Your task to perform on an android device: change notifications settings Image 0: 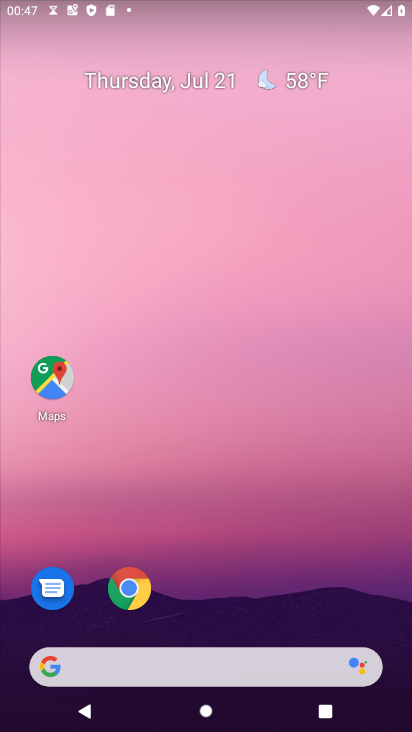
Step 0: drag from (221, 639) to (221, 72)
Your task to perform on an android device: change notifications settings Image 1: 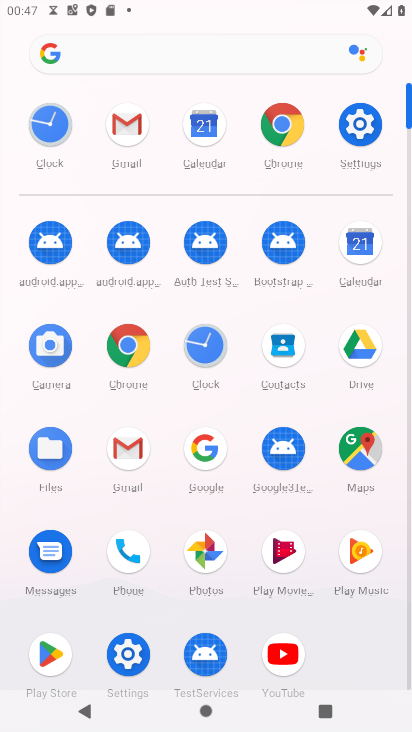
Step 1: click (143, 654)
Your task to perform on an android device: change notifications settings Image 2: 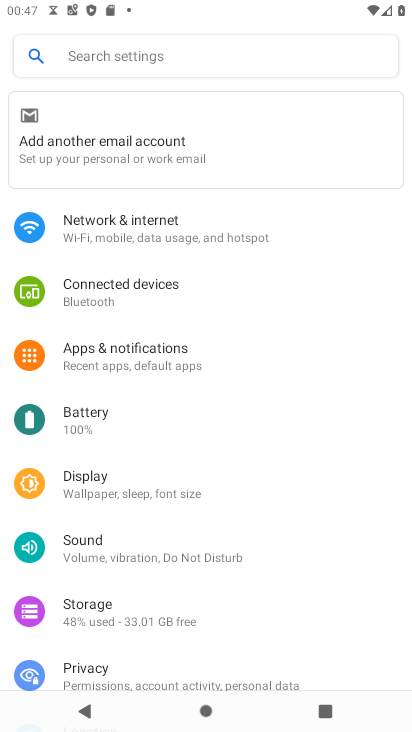
Step 2: click (165, 360)
Your task to perform on an android device: change notifications settings Image 3: 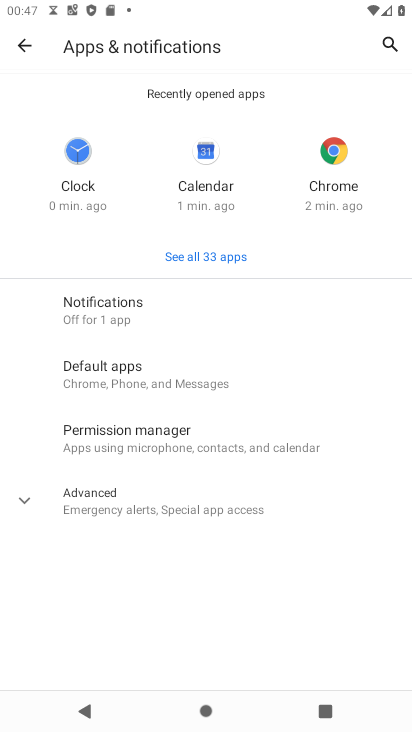
Step 3: click (127, 312)
Your task to perform on an android device: change notifications settings Image 4: 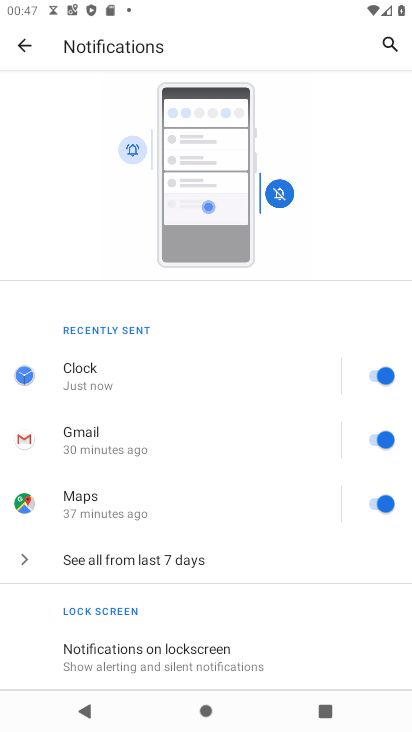
Step 4: click (117, 566)
Your task to perform on an android device: change notifications settings Image 5: 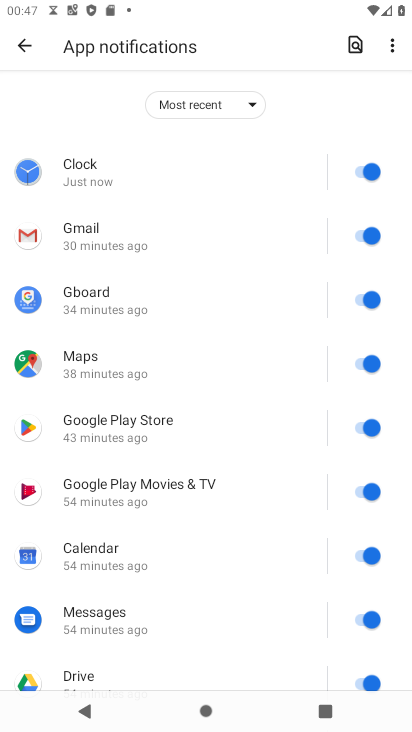
Step 5: click (353, 171)
Your task to perform on an android device: change notifications settings Image 6: 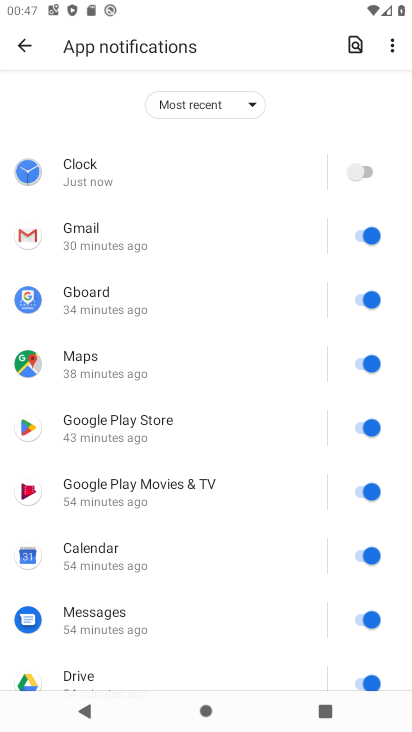
Step 6: click (354, 233)
Your task to perform on an android device: change notifications settings Image 7: 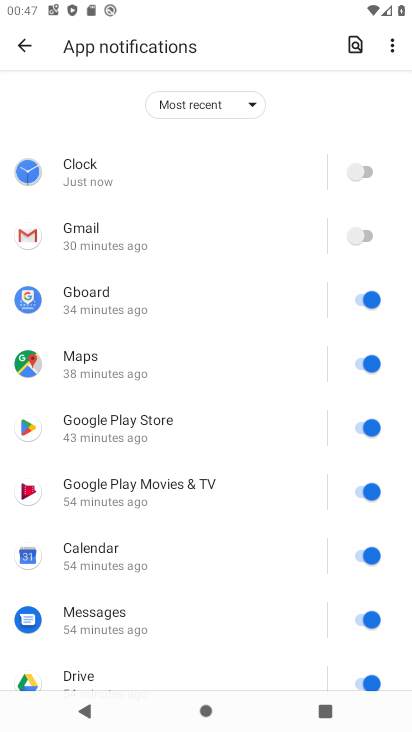
Step 7: click (357, 305)
Your task to perform on an android device: change notifications settings Image 8: 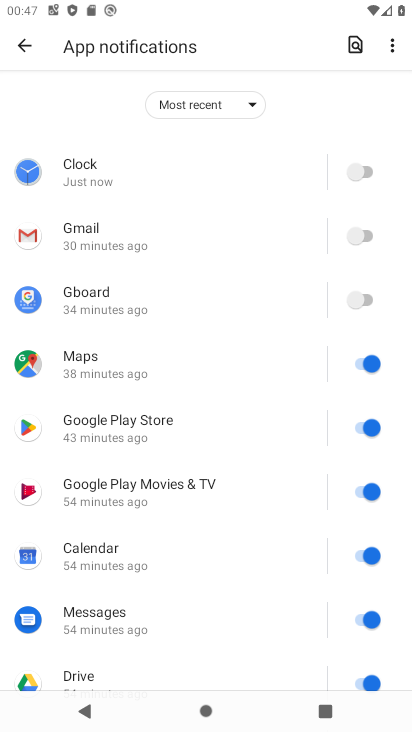
Step 8: click (357, 367)
Your task to perform on an android device: change notifications settings Image 9: 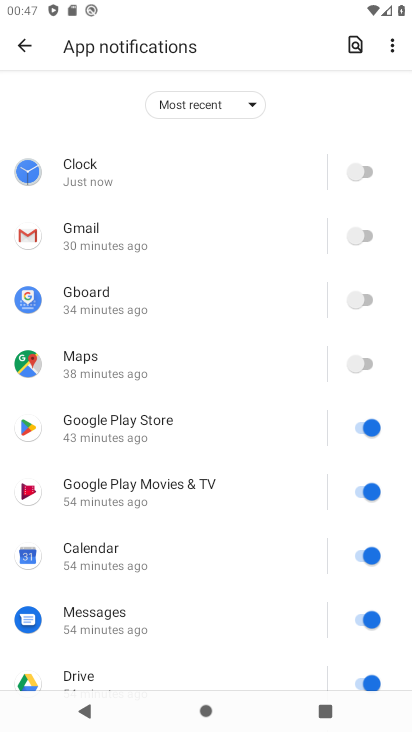
Step 9: click (359, 434)
Your task to perform on an android device: change notifications settings Image 10: 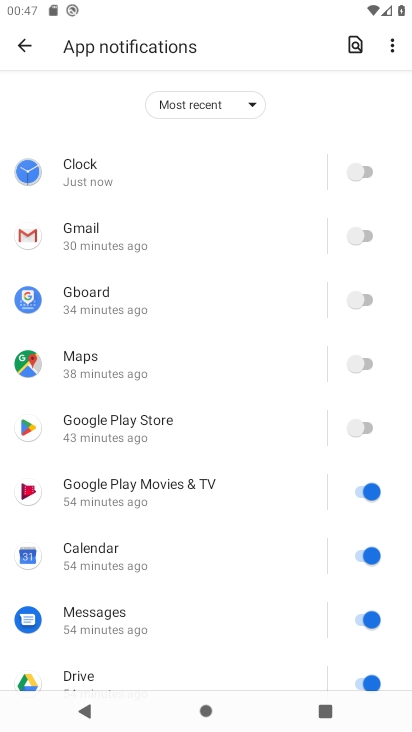
Step 10: click (339, 486)
Your task to perform on an android device: change notifications settings Image 11: 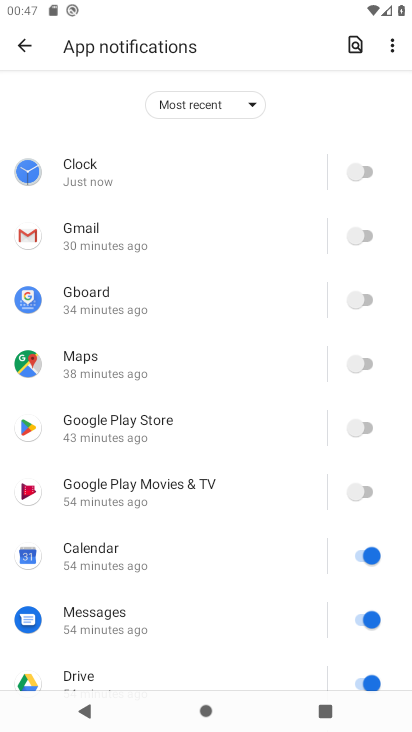
Step 11: drag from (280, 581) to (283, 325)
Your task to perform on an android device: change notifications settings Image 12: 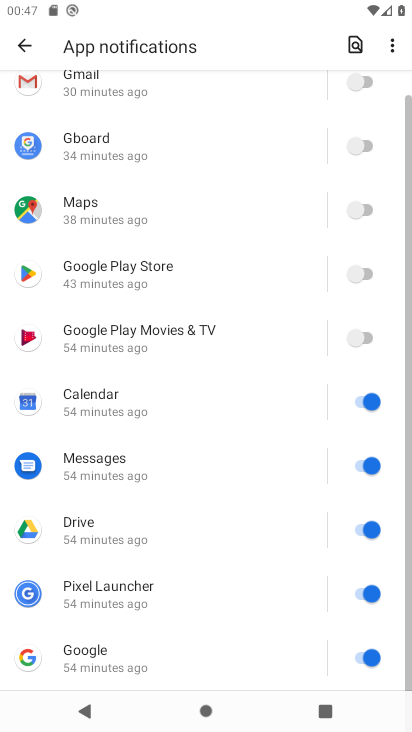
Step 12: click (350, 406)
Your task to perform on an android device: change notifications settings Image 13: 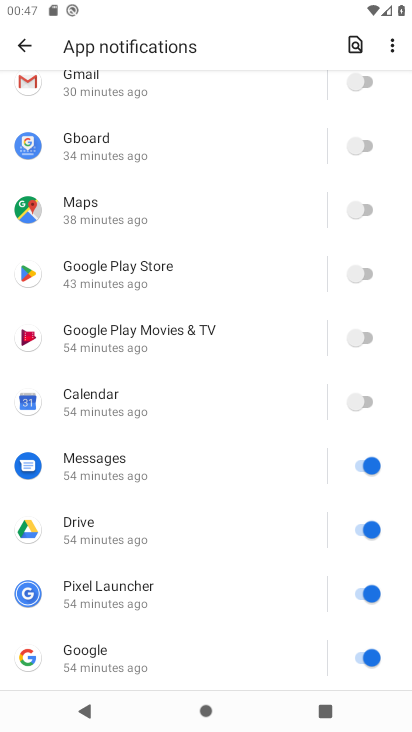
Step 13: click (339, 472)
Your task to perform on an android device: change notifications settings Image 14: 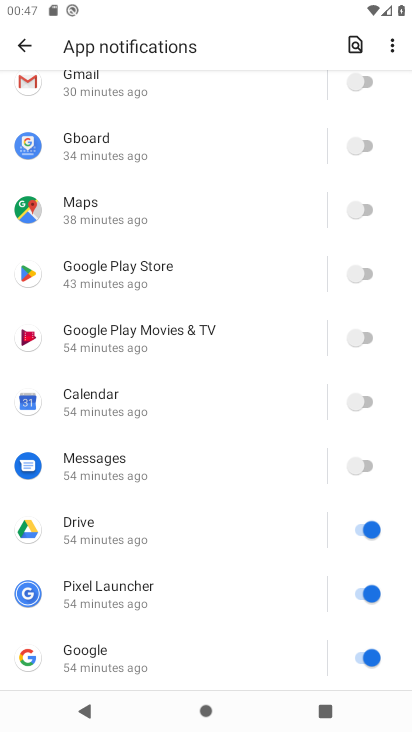
Step 14: click (343, 538)
Your task to perform on an android device: change notifications settings Image 15: 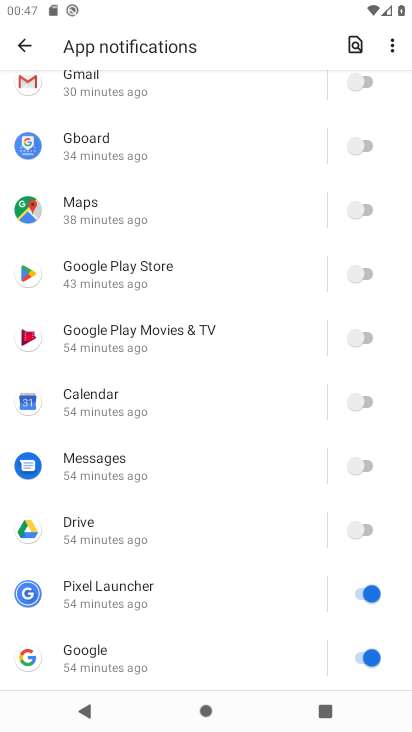
Step 15: click (346, 612)
Your task to perform on an android device: change notifications settings Image 16: 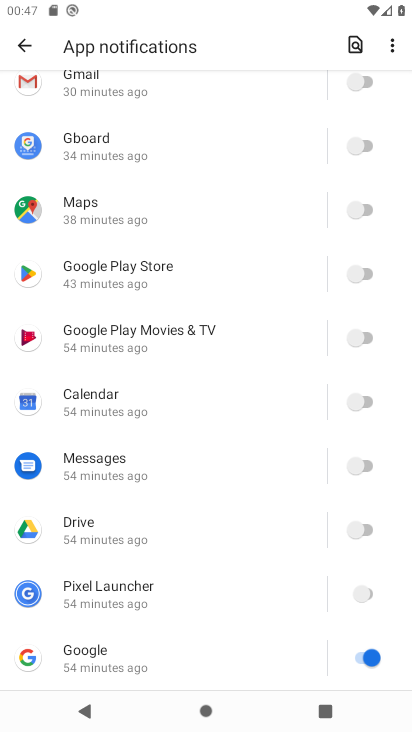
Step 16: click (345, 657)
Your task to perform on an android device: change notifications settings Image 17: 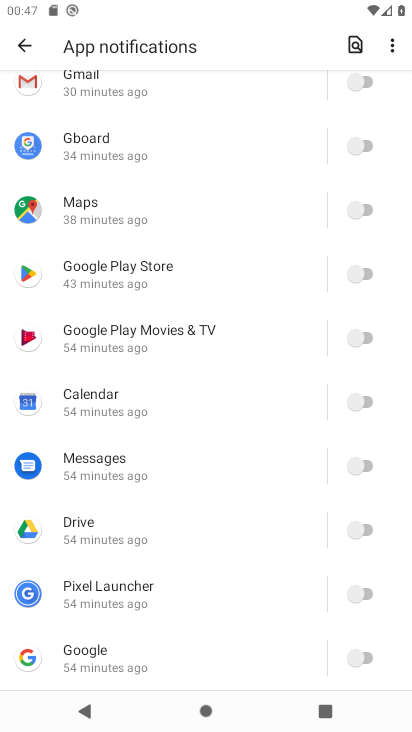
Step 17: task complete